Your task to perform on an android device: Open Reddit.com Image 0: 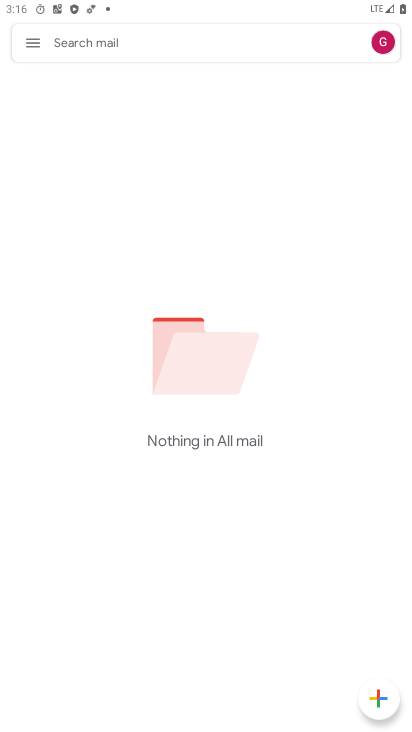
Step 0: press home button
Your task to perform on an android device: Open Reddit.com Image 1: 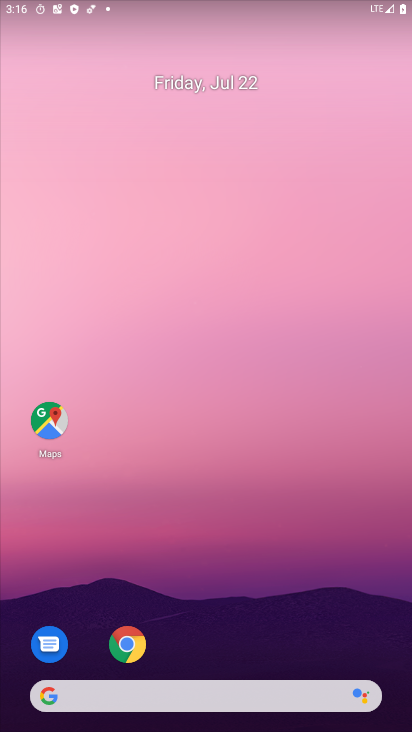
Step 1: click (46, 690)
Your task to perform on an android device: Open Reddit.com Image 2: 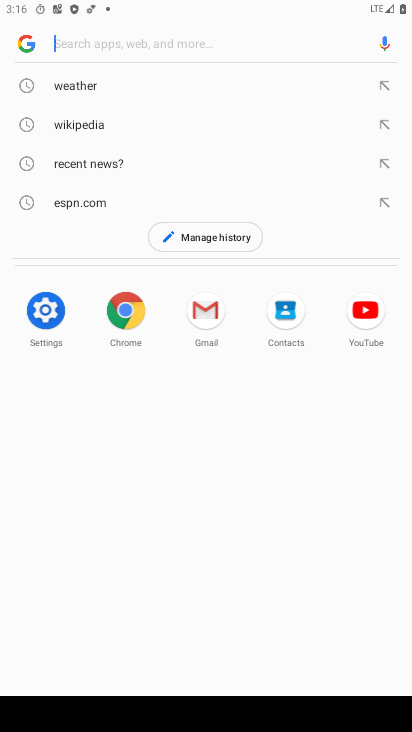
Step 2: type " Reddit.com"
Your task to perform on an android device: Open Reddit.com Image 3: 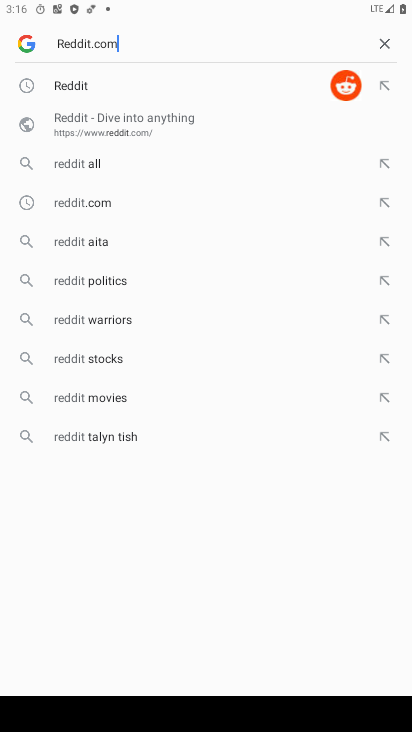
Step 3: press enter
Your task to perform on an android device: Open Reddit.com Image 4: 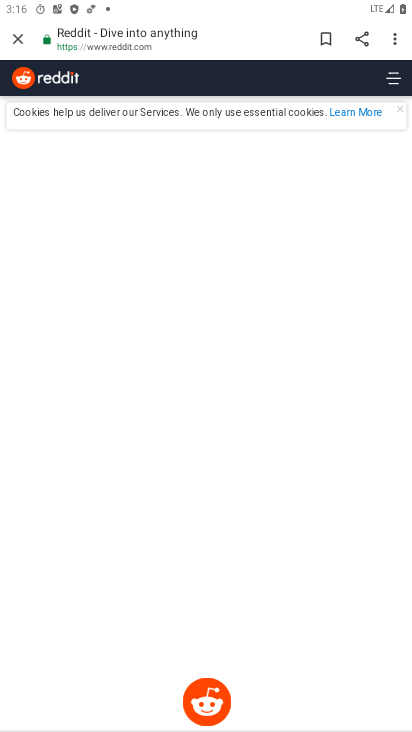
Step 4: task complete